Your task to perform on an android device: turn pop-ups off in chrome Image 0: 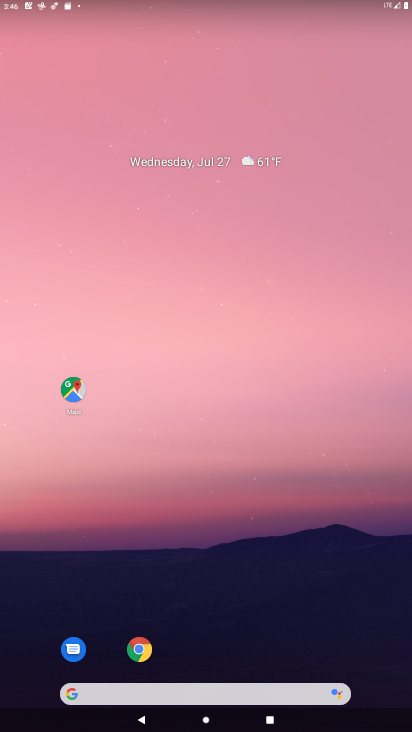
Step 0: click (143, 652)
Your task to perform on an android device: turn pop-ups off in chrome Image 1: 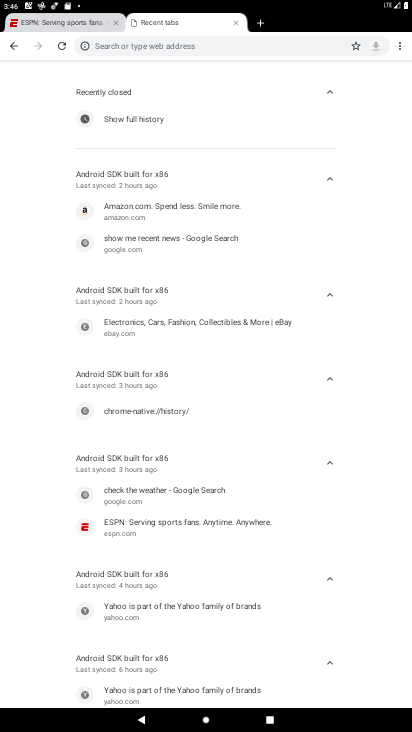
Step 1: click (405, 50)
Your task to perform on an android device: turn pop-ups off in chrome Image 2: 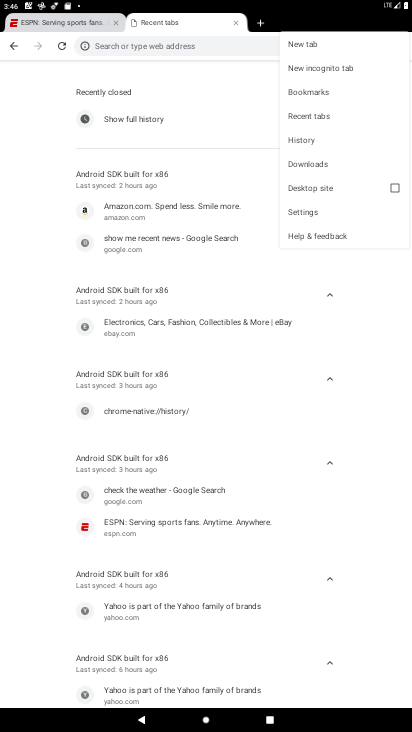
Step 2: click (302, 214)
Your task to perform on an android device: turn pop-ups off in chrome Image 3: 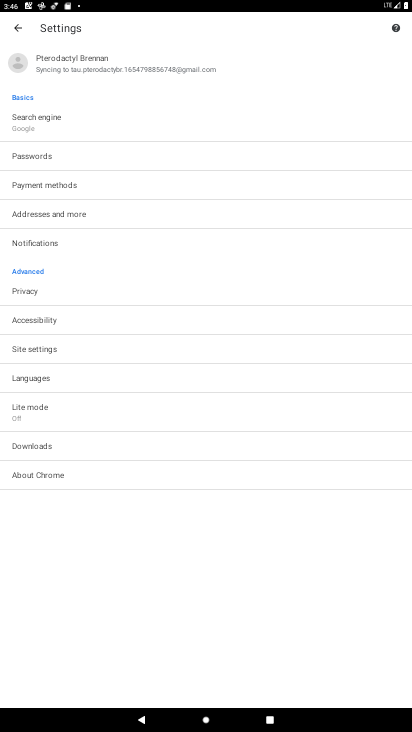
Step 3: click (44, 351)
Your task to perform on an android device: turn pop-ups off in chrome Image 4: 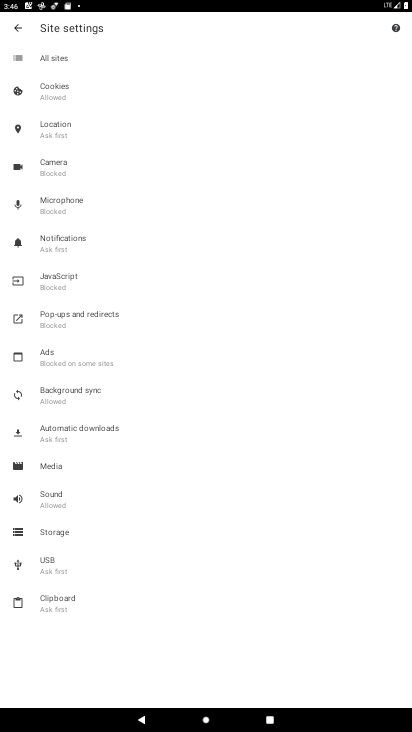
Step 4: click (75, 319)
Your task to perform on an android device: turn pop-ups off in chrome Image 5: 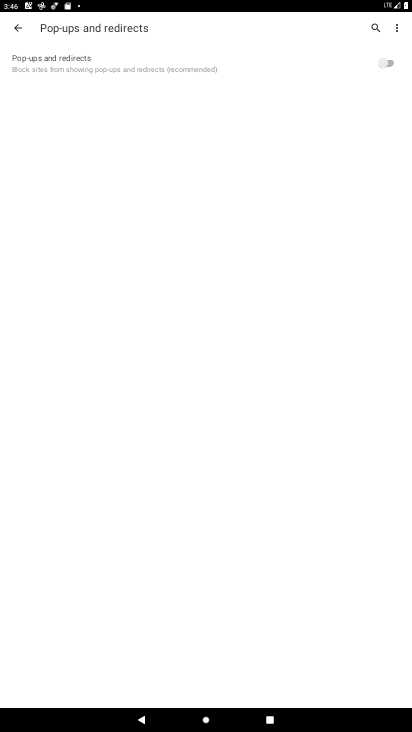
Step 5: task complete